Your task to perform on an android device: check the backup settings in the google photos Image 0: 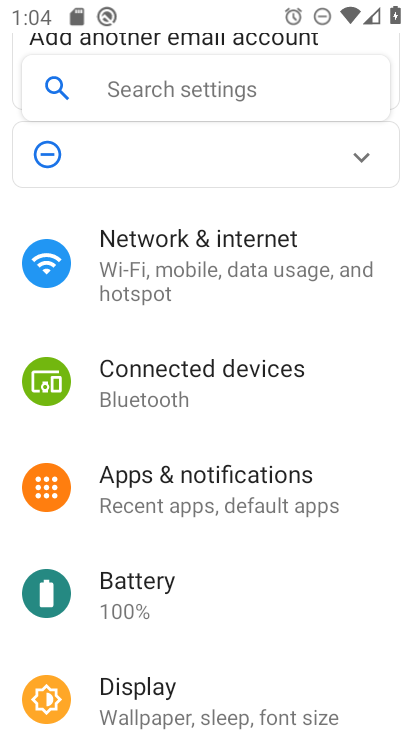
Step 0: press home button
Your task to perform on an android device: check the backup settings in the google photos Image 1: 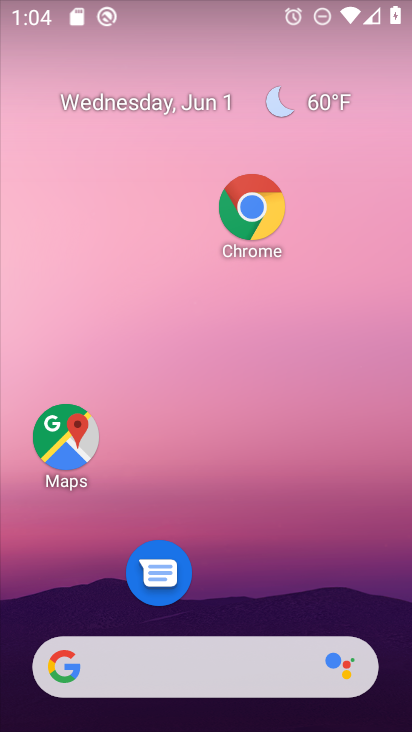
Step 1: drag from (205, 599) to (201, 192)
Your task to perform on an android device: check the backup settings in the google photos Image 2: 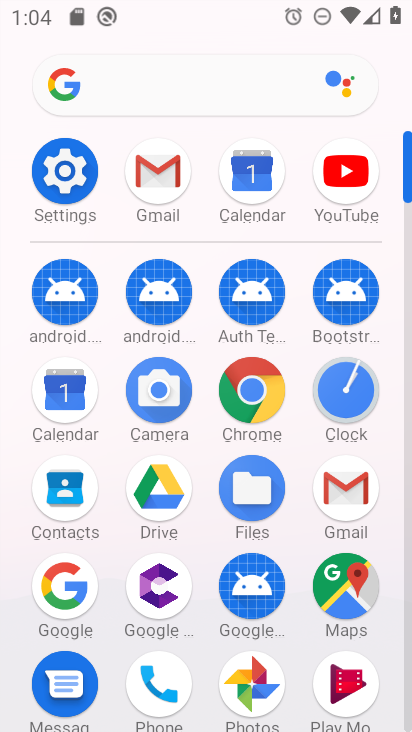
Step 2: click (254, 667)
Your task to perform on an android device: check the backup settings in the google photos Image 3: 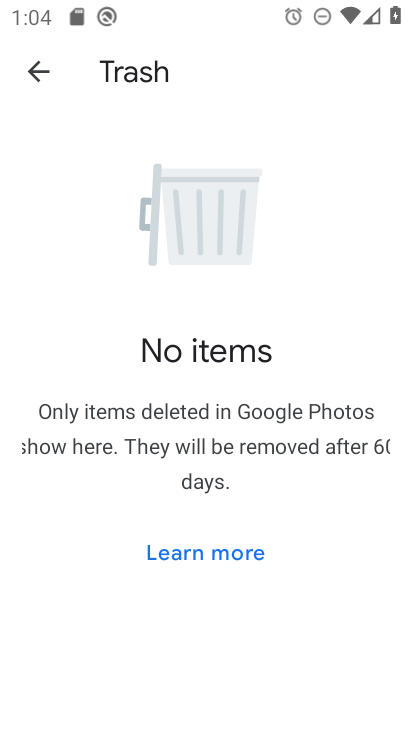
Step 3: click (48, 70)
Your task to perform on an android device: check the backup settings in the google photos Image 4: 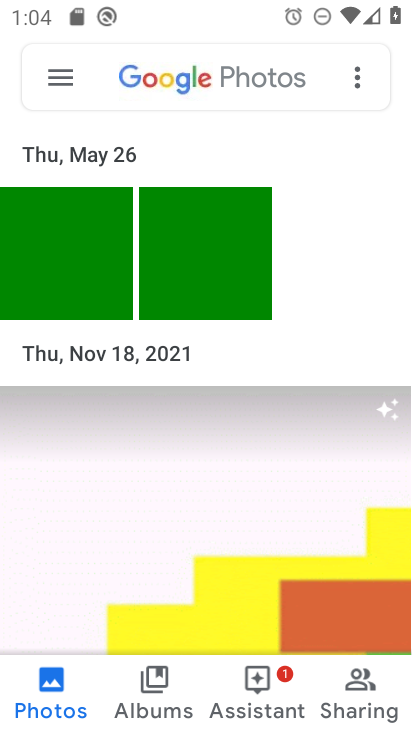
Step 4: click (48, 70)
Your task to perform on an android device: check the backup settings in the google photos Image 5: 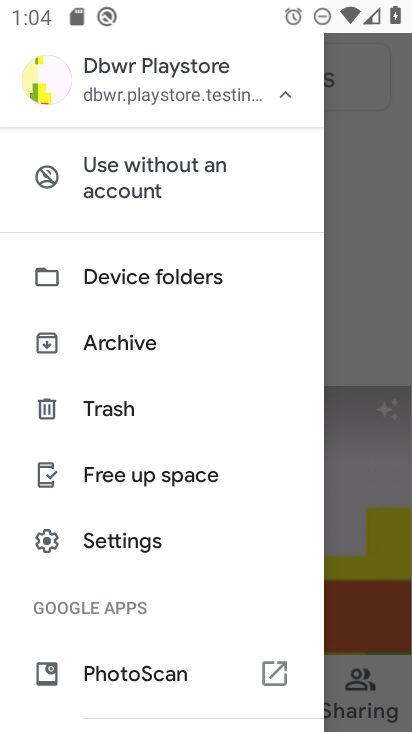
Step 5: click (149, 540)
Your task to perform on an android device: check the backup settings in the google photos Image 6: 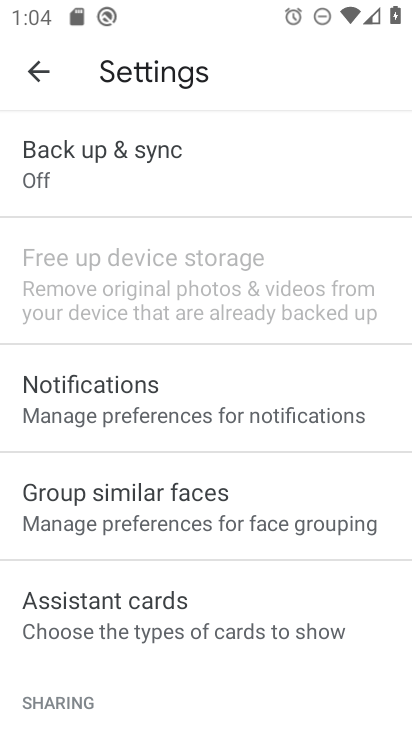
Step 6: click (185, 162)
Your task to perform on an android device: check the backup settings in the google photos Image 7: 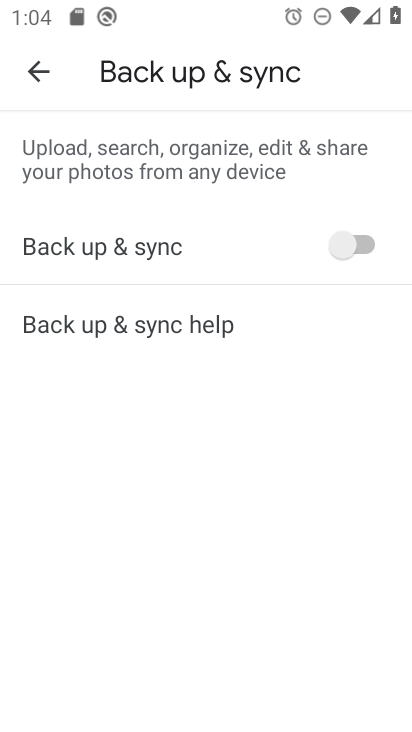
Step 7: task complete